Your task to perform on an android device: find snoozed emails in the gmail app Image 0: 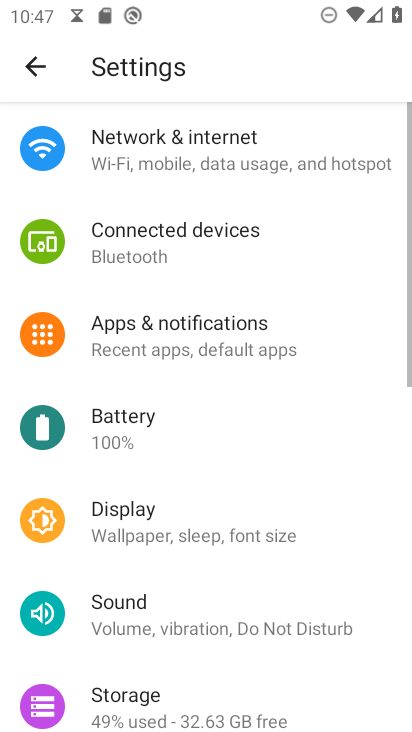
Step 0: press home button
Your task to perform on an android device: find snoozed emails in the gmail app Image 1: 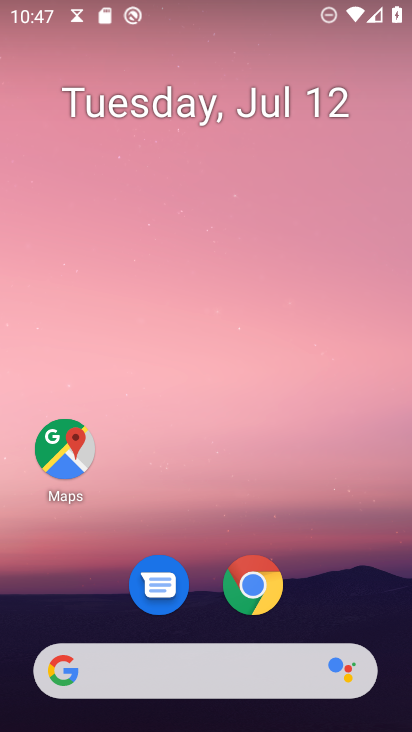
Step 1: drag from (225, 673) to (236, 81)
Your task to perform on an android device: find snoozed emails in the gmail app Image 2: 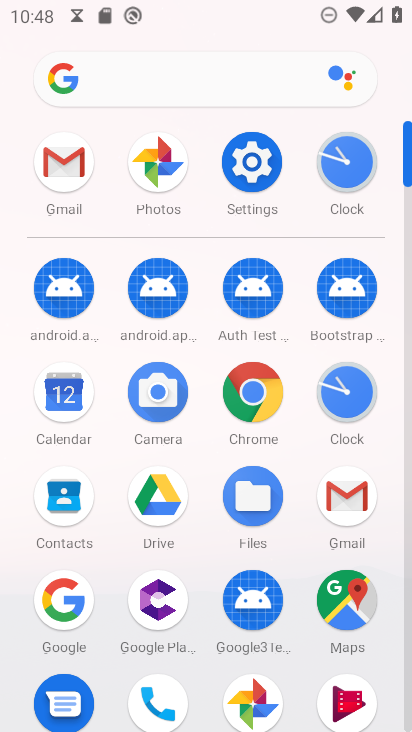
Step 2: click (62, 168)
Your task to perform on an android device: find snoozed emails in the gmail app Image 3: 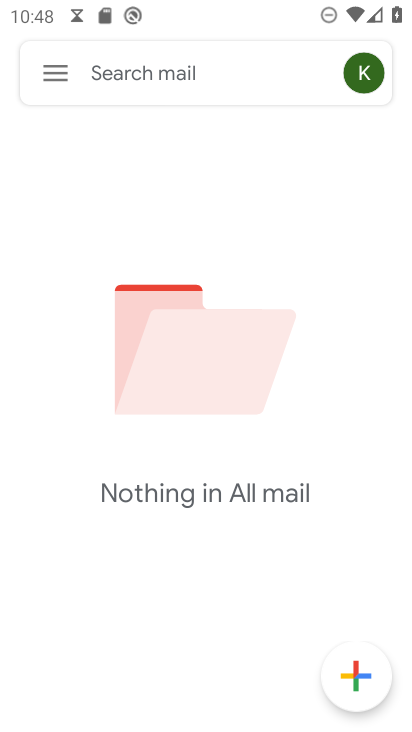
Step 3: click (56, 74)
Your task to perform on an android device: find snoozed emails in the gmail app Image 4: 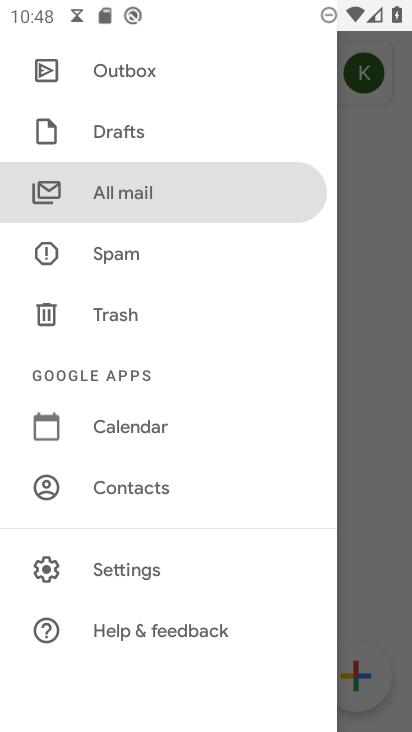
Step 4: drag from (221, 101) to (199, 560)
Your task to perform on an android device: find snoozed emails in the gmail app Image 5: 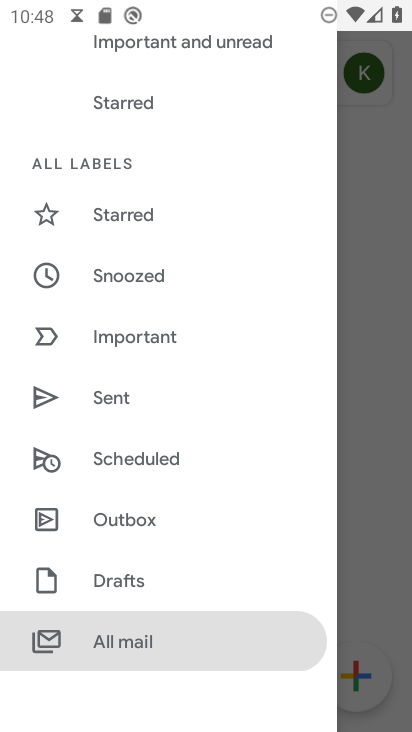
Step 5: click (141, 284)
Your task to perform on an android device: find snoozed emails in the gmail app Image 6: 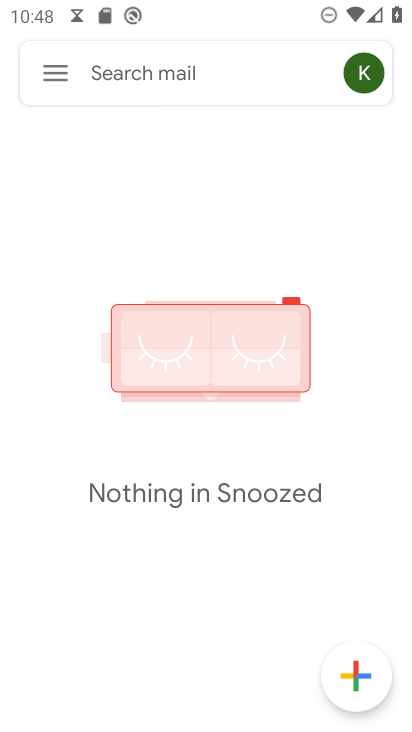
Step 6: task complete